Your task to perform on an android device: Go to privacy settings Image 0: 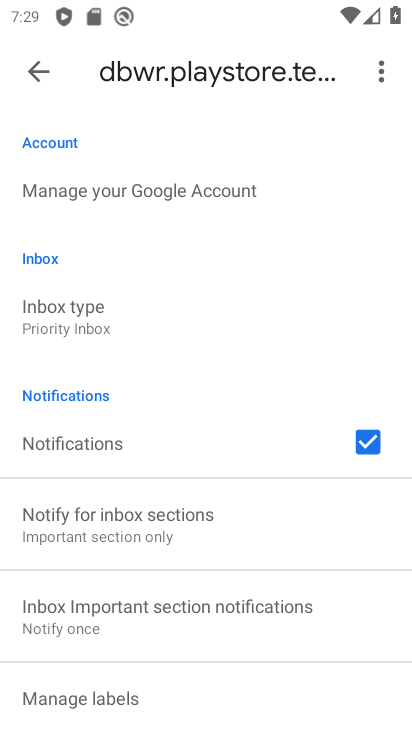
Step 0: press home button
Your task to perform on an android device: Go to privacy settings Image 1: 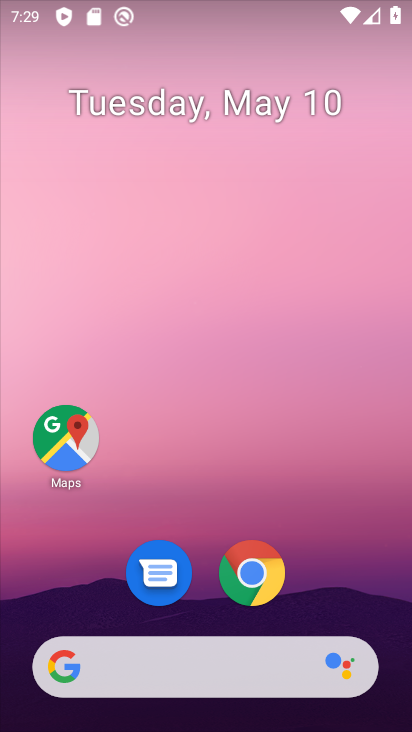
Step 1: drag from (335, 562) to (300, 99)
Your task to perform on an android device: Go to privacy settings Image 2: 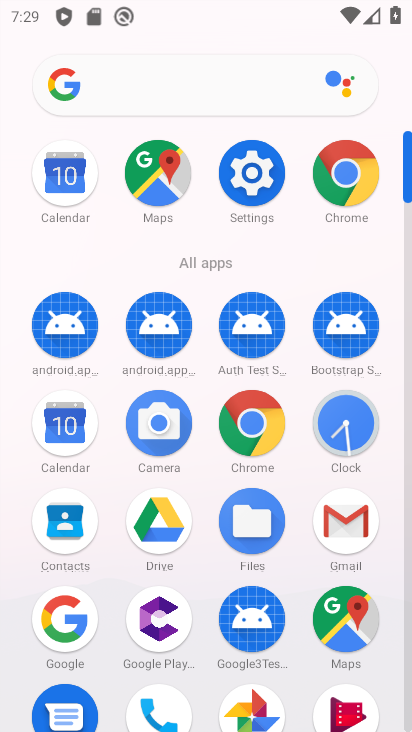
Step 2: click (258, 183)
Your task to perform on an android device: Go to privacy settings Image 3: 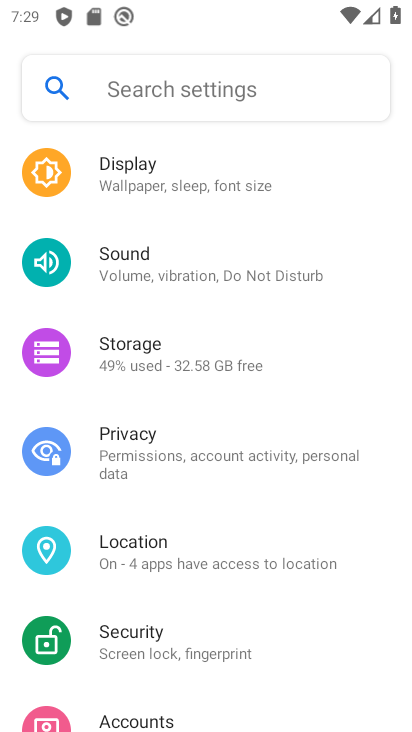
Step 3: click (235, 434)
Your task to perform on an android device: Go to privacy settings Image 4: 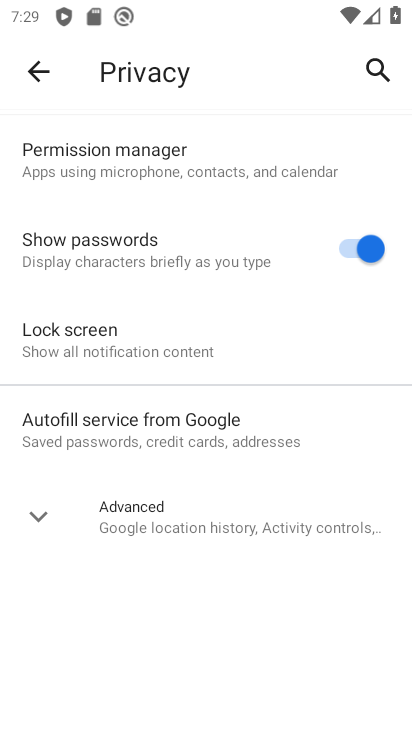
Step 4: task complete